Your task to perform on an android device: Open Android settings Image 0: 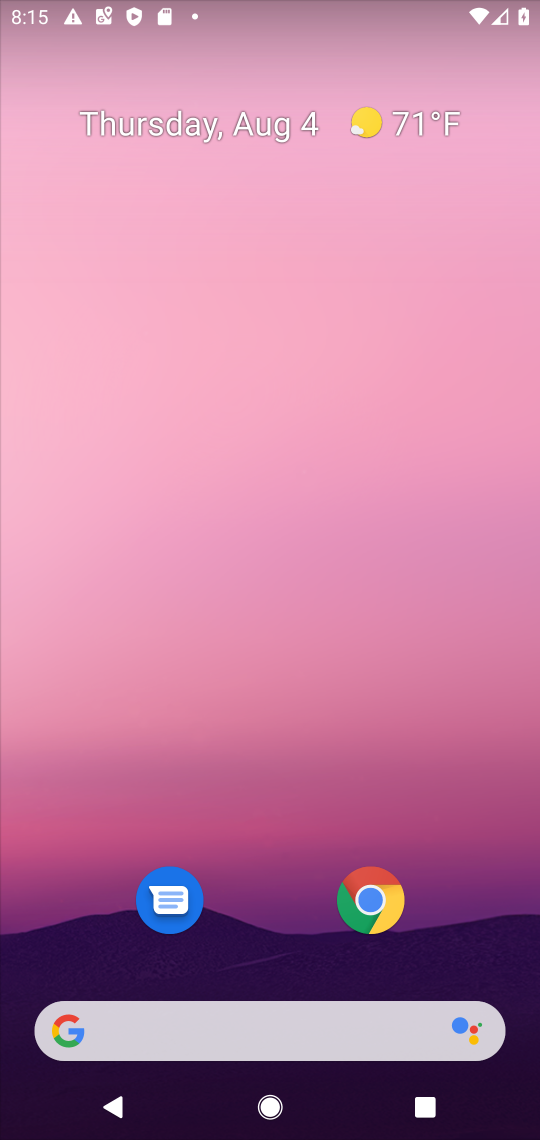
Step 0: click (255, 194)
Your task to perform on an android device: Open Android settings Image 1: 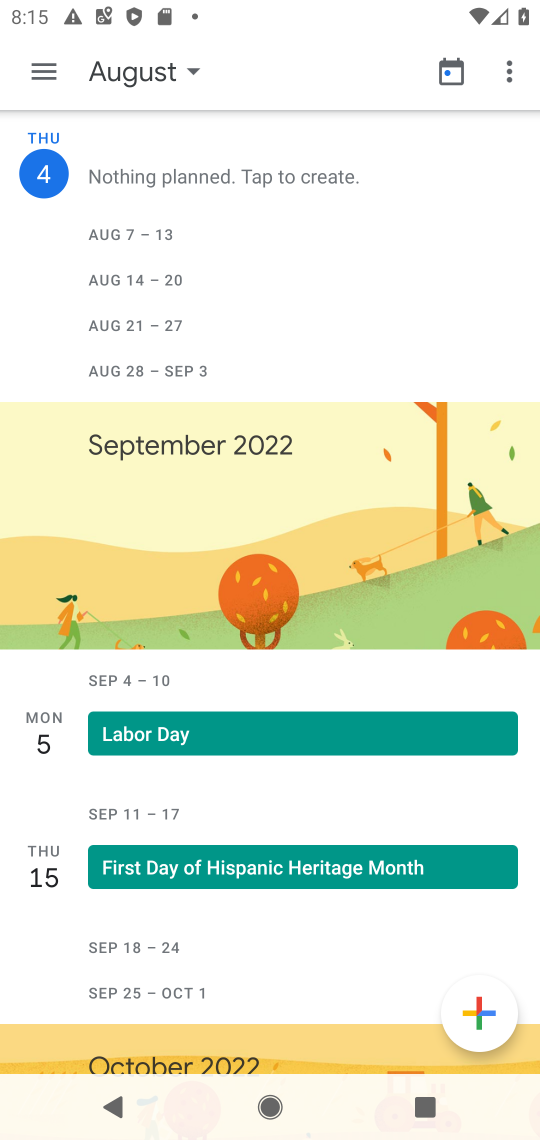
Step 1: press home button
Your task to perform on an android device: Open Android settings Image 2: 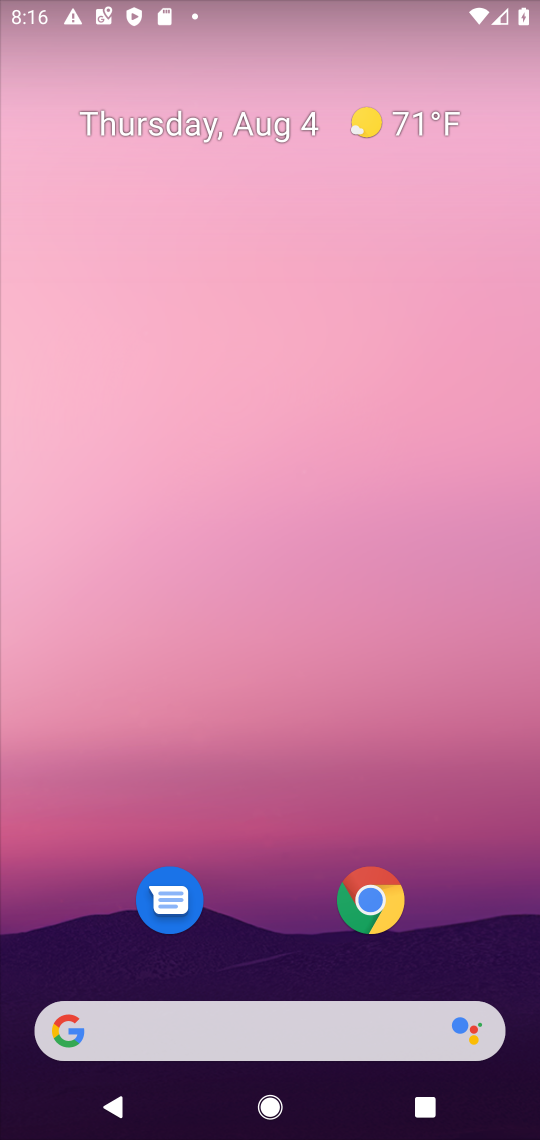
Step 2: drag from (252, 930) to (258, 244)
Your task to perform on an android device: Open Android settings Image 3: 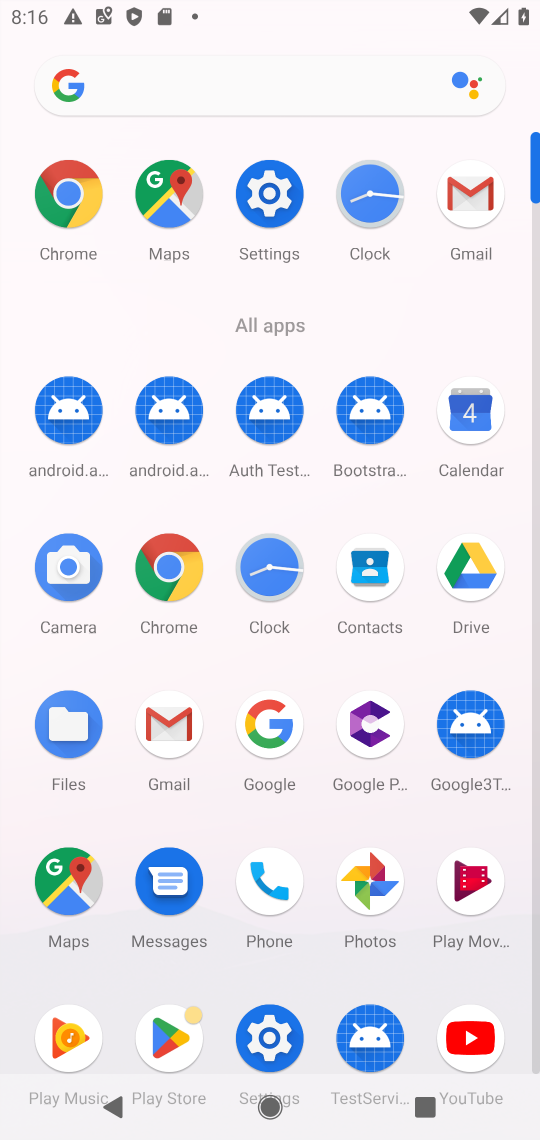
Step 3: click (270, 193)
Your task to perform on an android device: Open Android settings Image 4: 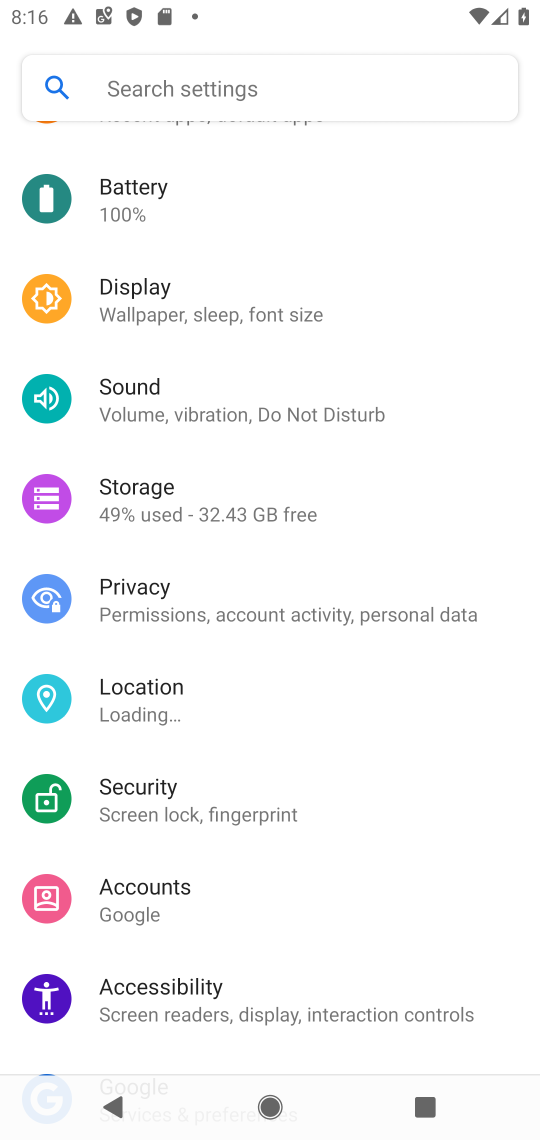
Step 4: drag from (167, 991) to (171, 467)
Your task to perform on an android device: Open Android settings Image 5: 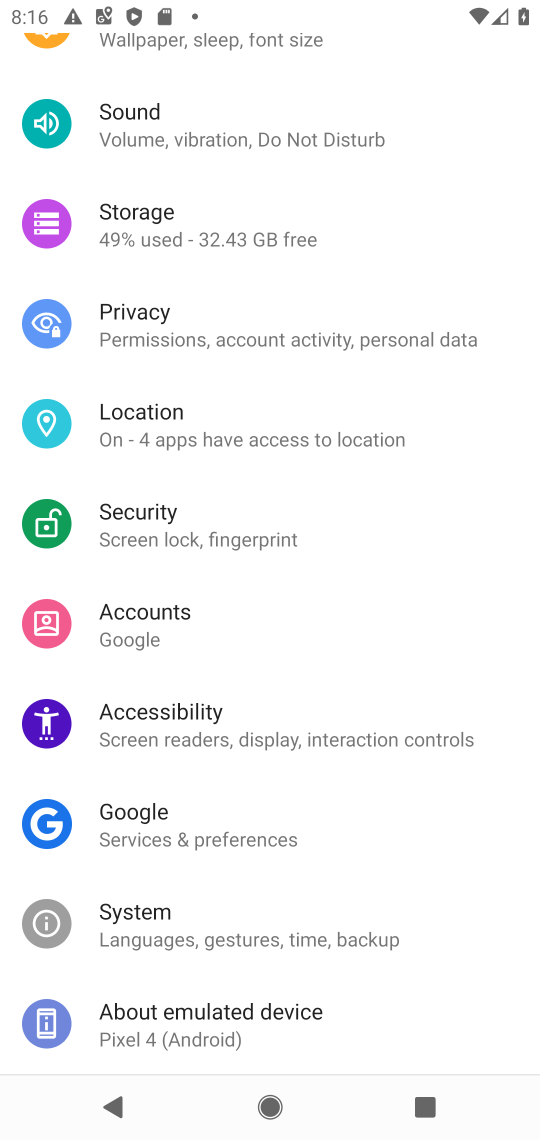
Step 5: click (142, 1028)
Your task to perform on an android device: Open Android settings Image 6: 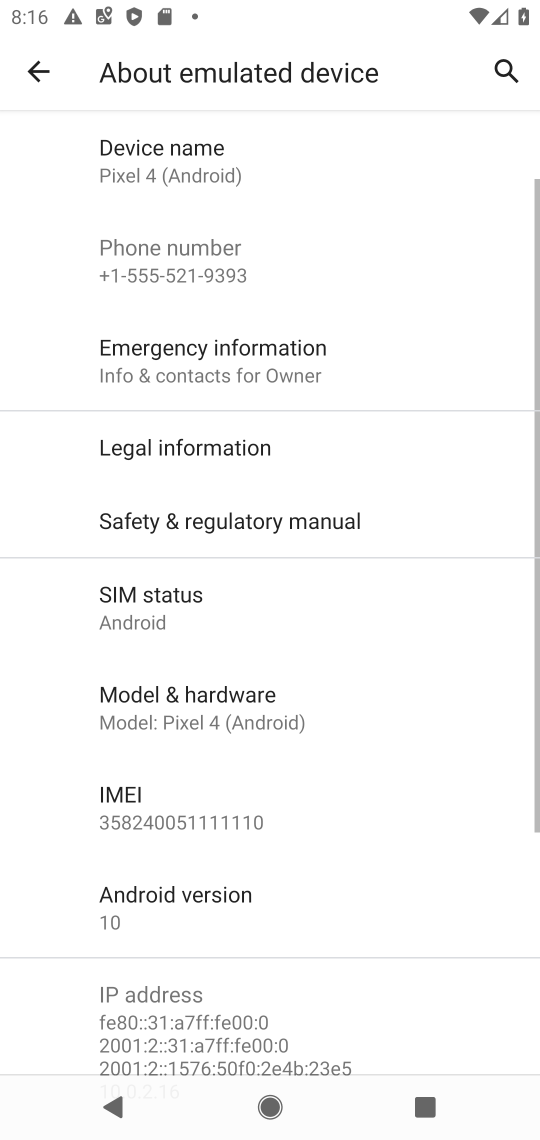
Step 6: click (138, 895)
Your task to perform on an android device: Open Android settings Image 7: 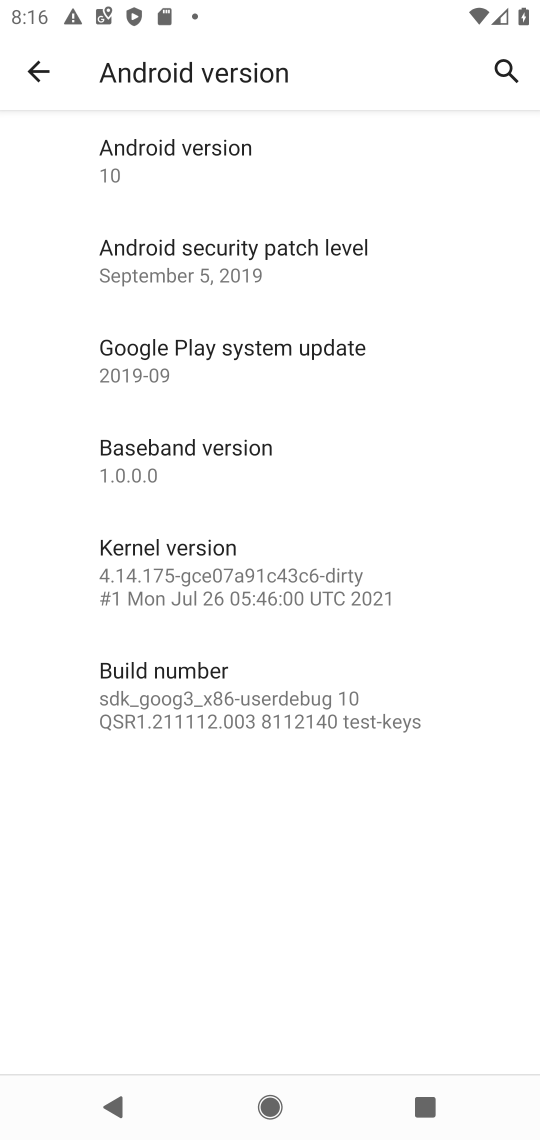
Step 7: task complete